Your task to perform on an android device: check google app version Image 0: 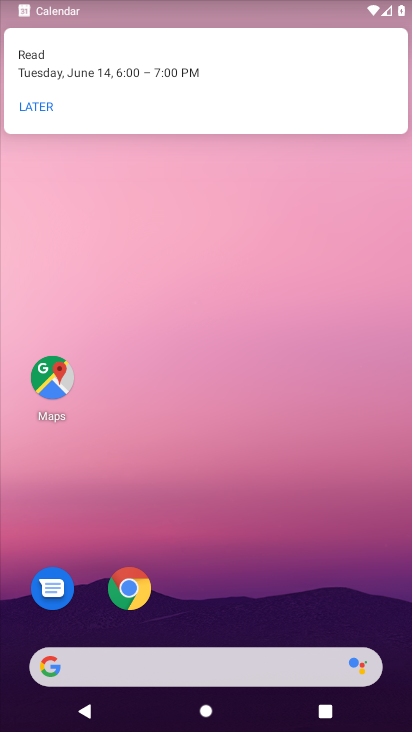
Step 0: drag from (396, 643) to (300, 56)
Your task to perform on an android device: check google app version Image 1: 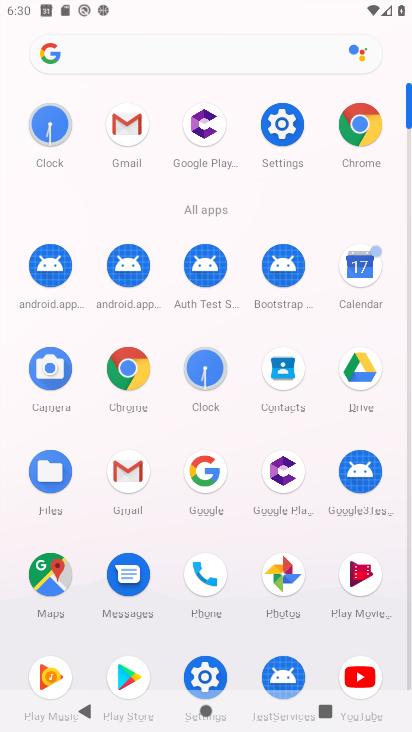
Step 1: click (186, 470)
Your task to perform on an android device: check google app version Image 2: 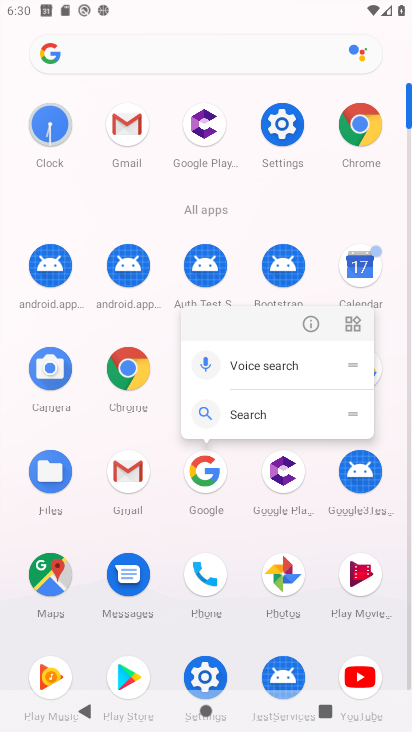
Step 2: click (300, 327)
Your task to perform on an android device: check google app version Image 3: 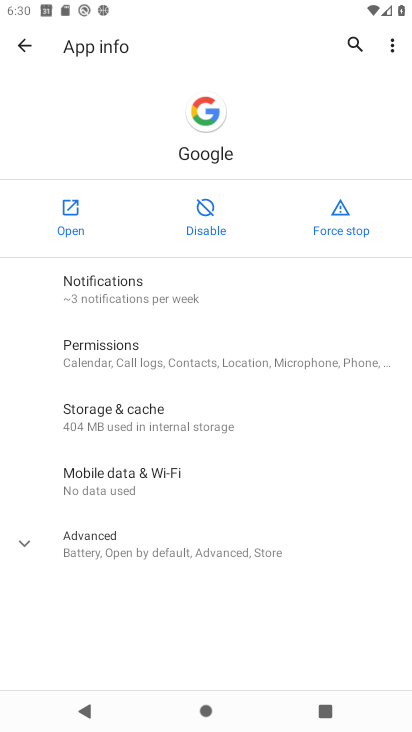
Step 3: click (133, 546)
Your task to perform on an android device: check google app version Image 4: 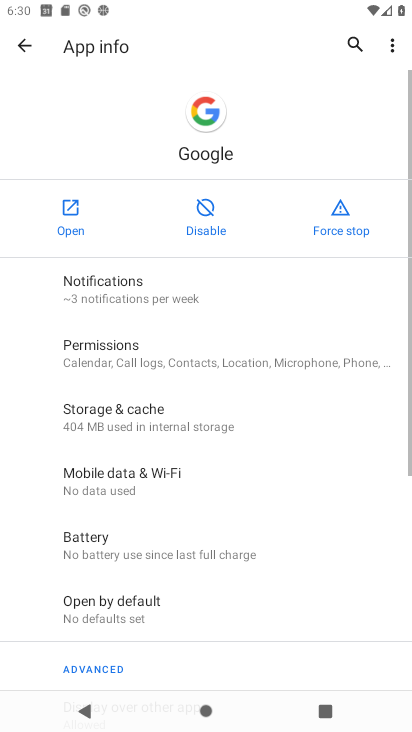
Step 4: task complete